Your task to perform on an android device: Open Wikipedia Image 0: 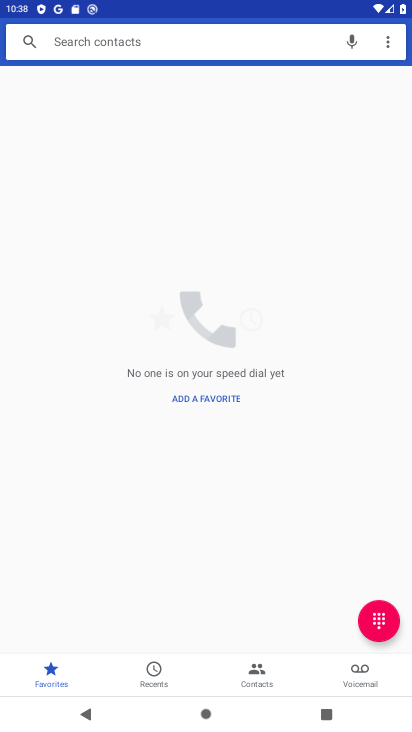
Step 0: press home button
Your task to perform on an android device: Open Wikipedia Image 1: 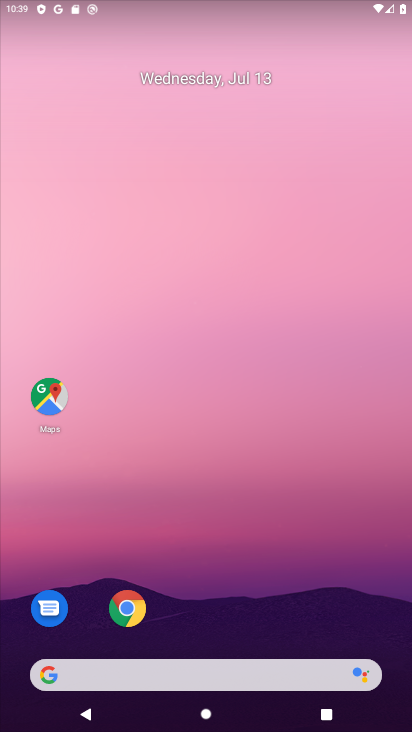
Step 1: click (128, 606)
Your task to perform on an android device: Open Wikipedia Image 2: 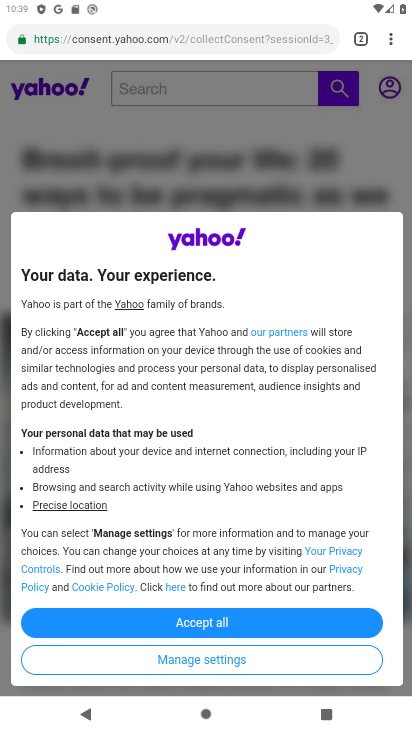
Step 2: click (209, 42)
Your task to perform on an android device: Open Wikipedia Image 3: 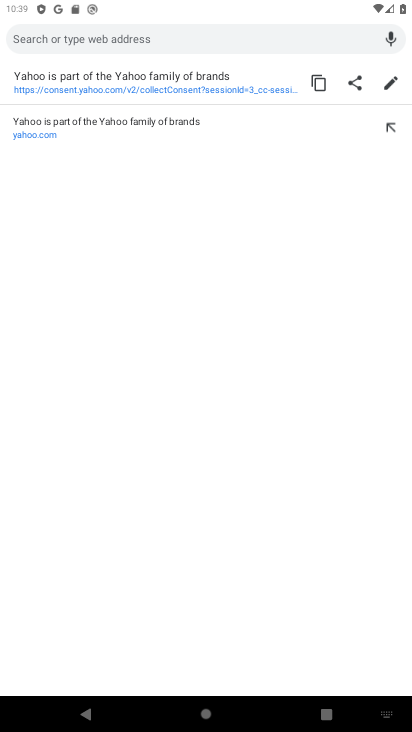
Step 3: type "wikipedia"
Your task to perform on an android device: Open Wikipedia Image 4: 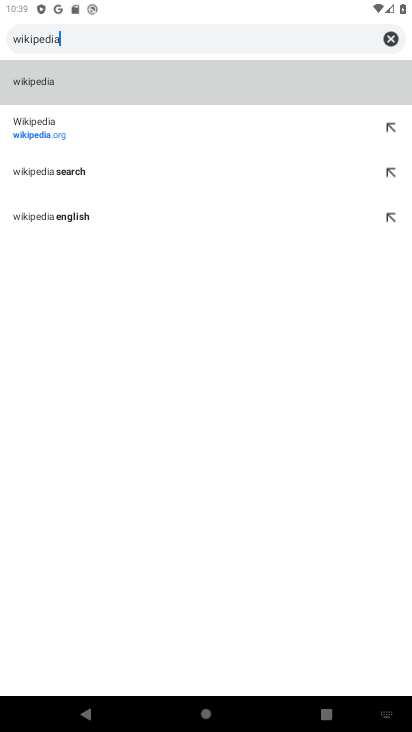
Step 4: click (13, 82)
Your task to perform on an android device: Open Wikipedia Image 5: 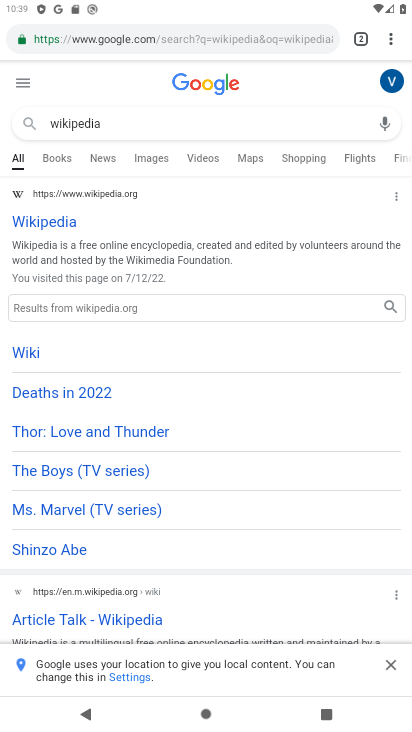
Step 5: click (44, 213)
Your task to perform on an android device: Open Wikipedia Image 6: 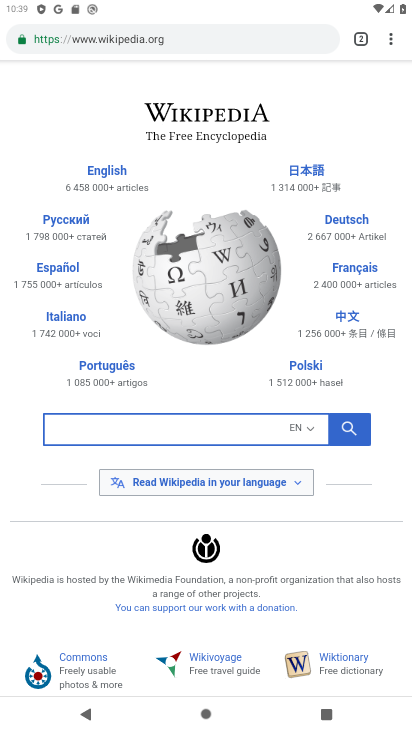
Step 6: task complete